Your task to perform on an android device: add a contact in the contacts app Image 0: 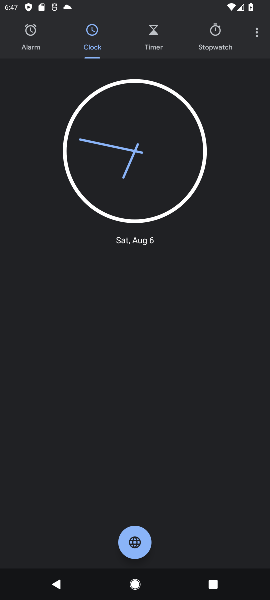
Step 0: press home button
Your task to perform on an android device: add a contact in the contacts app Image 1: 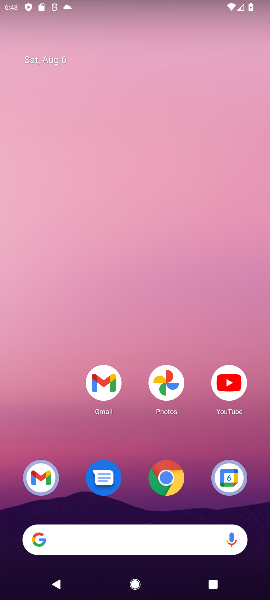
Step 1: press home button
Your task to perform on an android device: add a contact in the contacts app Image 2: 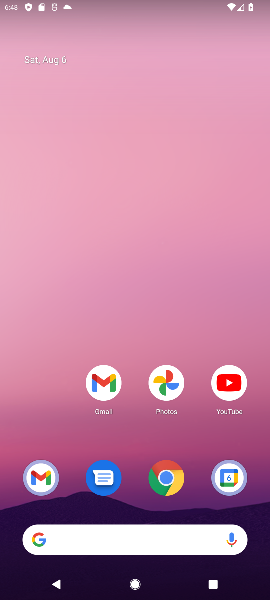
Step 2: drag from (28, 404) to (125, 1)
Your task to perform on an android device: add a contact in the contacts app Image 3: 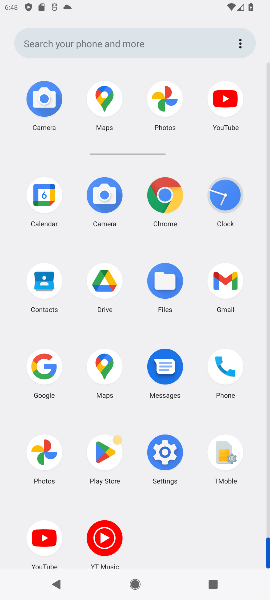
Step 3: click (47, 285)
Your task to perform on an android device: add a contact in the contacts app Image 4: 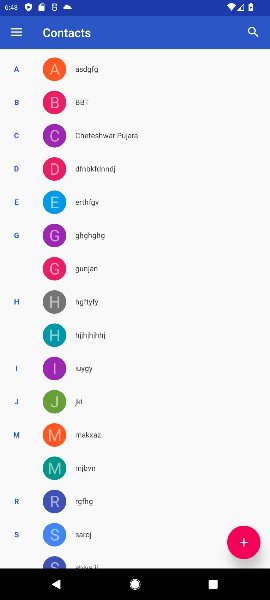
Step 4: click (246, 544)
Your task to perform on an android device: add a contact in the contacts app Image 5: 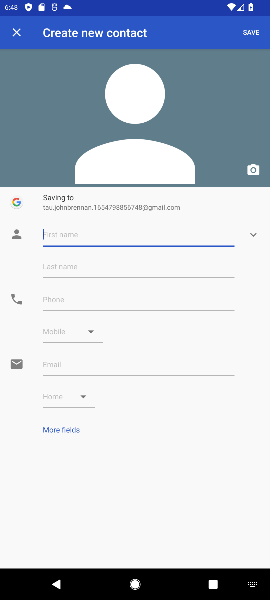
Step 5: click (135, 239)
Your task to perform on an android device: add a contact in the contacts app Image 6: 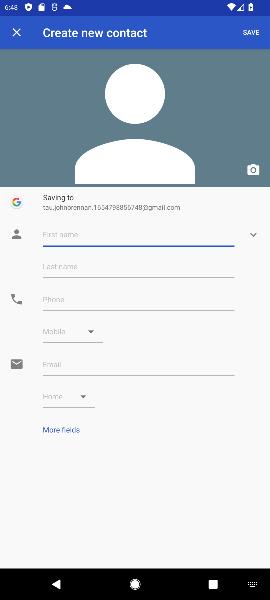
Step 6: type "vbxxbxbn"
Your task to perform on an android device: add a contact in the contacts app Image 7: 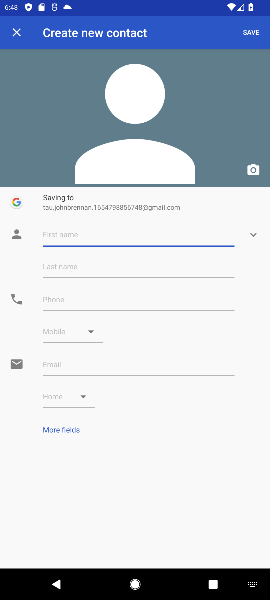
Step 7: click (94, 245)
Your task to perform on an android device: add a contact in the contacts app Image 8: 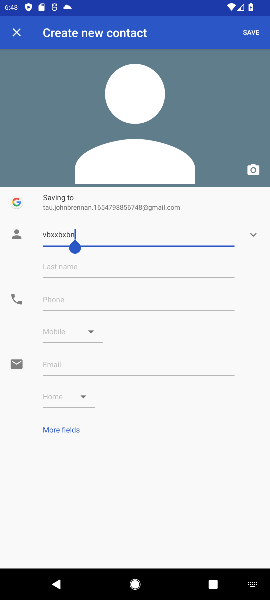
Step 8: click (45, 291)
Your task to perform on an android device: add a contact in the contacts app Image 9: 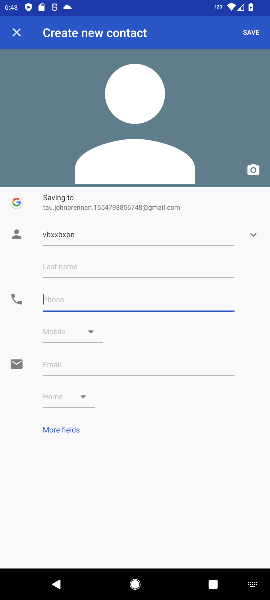
Step 9: type "5654545"
Your task to perform on an android device: add a contact in the contacts app Image 10: 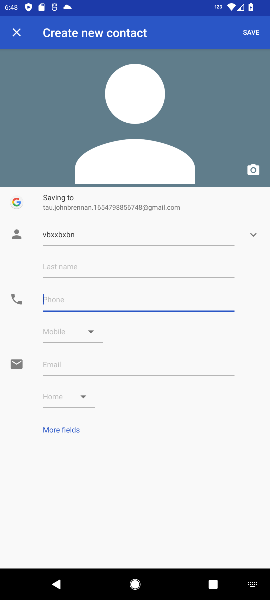
Step 10: click (56, 298)
Your task to perform on an android device: add a contact in the contacts app Image 11: 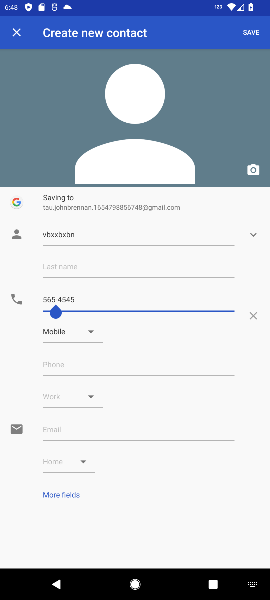
Step 11: click (255, 33)
Your task to perform on an android device: add a contact in the contacts app Image 12: 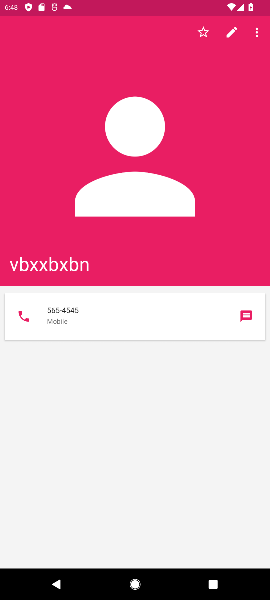
Step 12: task complete